Your task to perform on an android device: set the stopwatch Image 0: 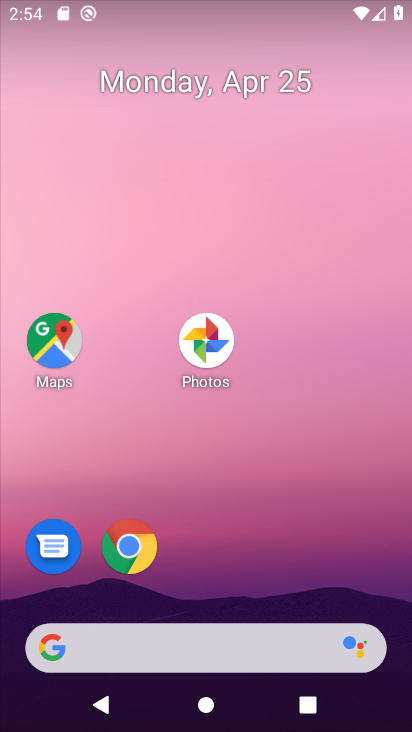
Step 0: drag from (277, 477) to (269, 223)
Your task to perform on an android device: set the stopwatch Image 1: 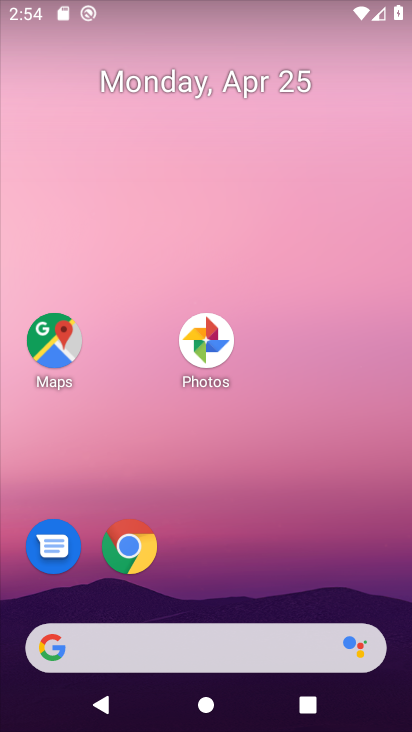
Step 1: drag from (300, 583) to (298, 219)
Your task to perform on an android device: set the stopwatch Image 2: 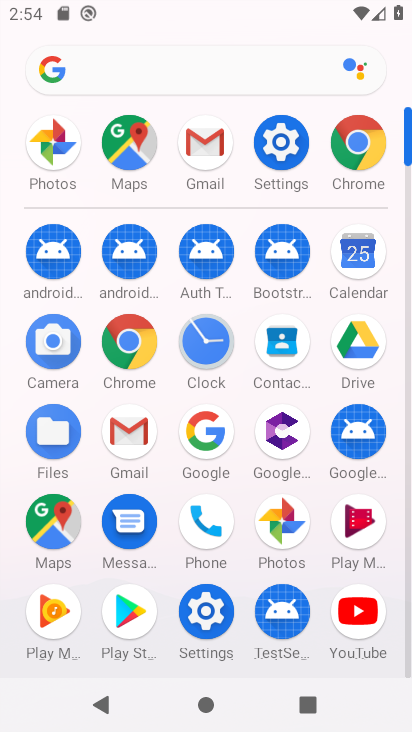
Step 2: click (196, 342)
Your task to perform on an android device: set the stopwatch Image 3: 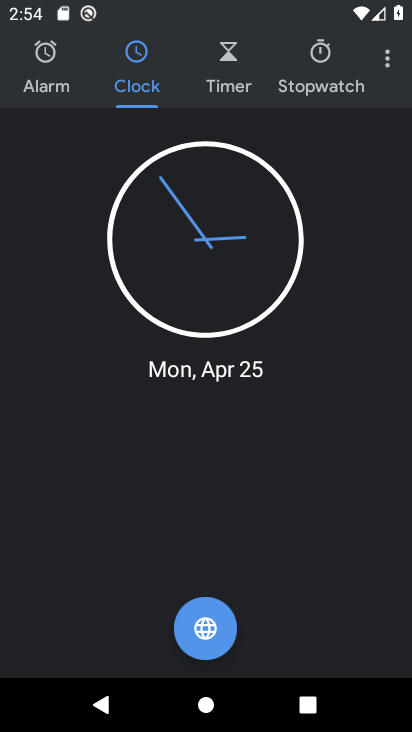
Step 3: click (336, 81)
Your task to perform on an android device: set the stopwatch Image 4: 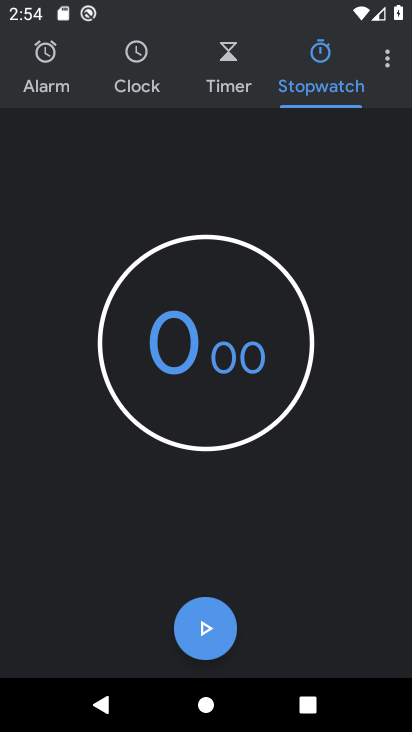
Step 4: click (203, 620)
Your task to perform on an android device: set the stopwatch Image 5: 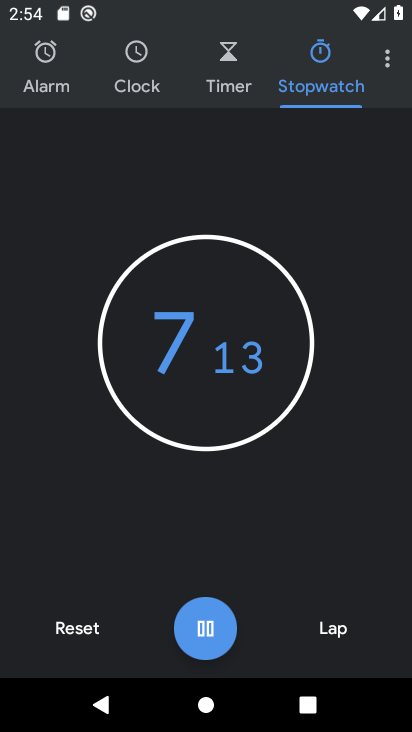
Step 5: click (65, 608)
Your task to perform on an android device: set the stopwatch Image 6: 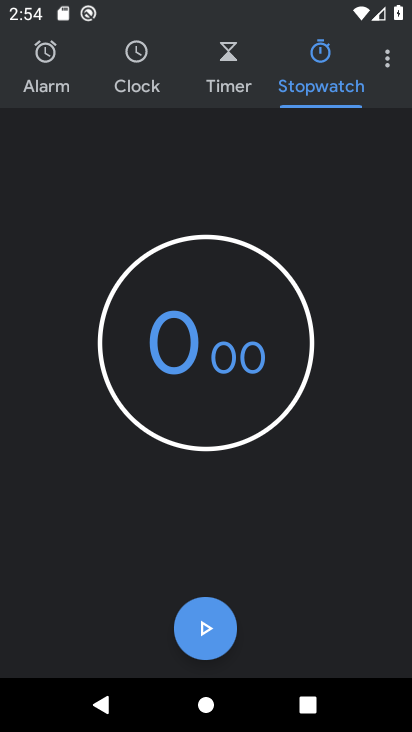
Step 6: task complete